Your task to perform on an android device: Open eBay Image 0: 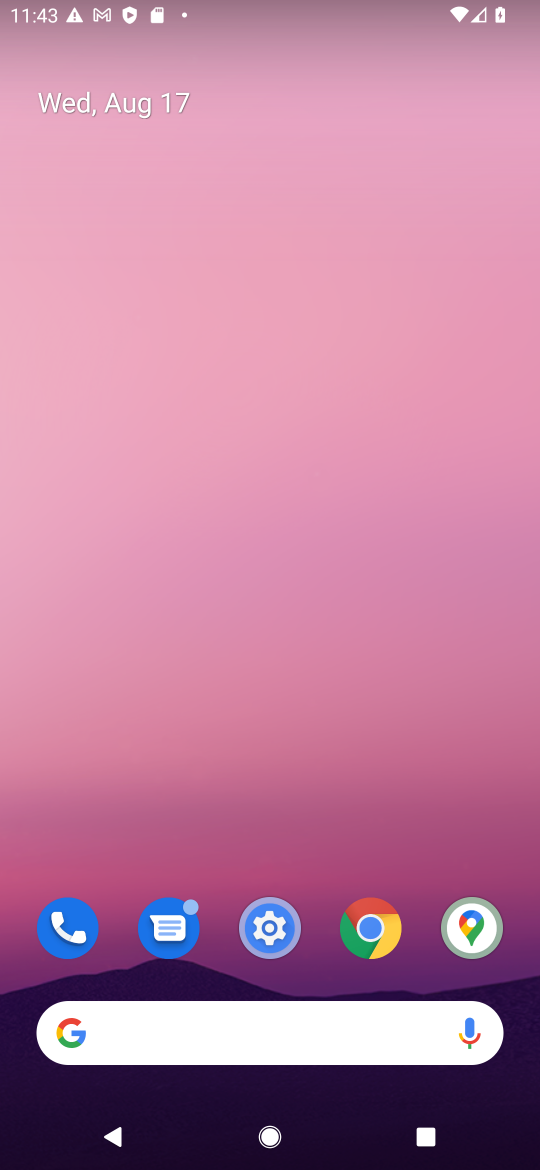
Step 0: click (356, 929)
Your task to perform on an android device: Open eBay Image 1: 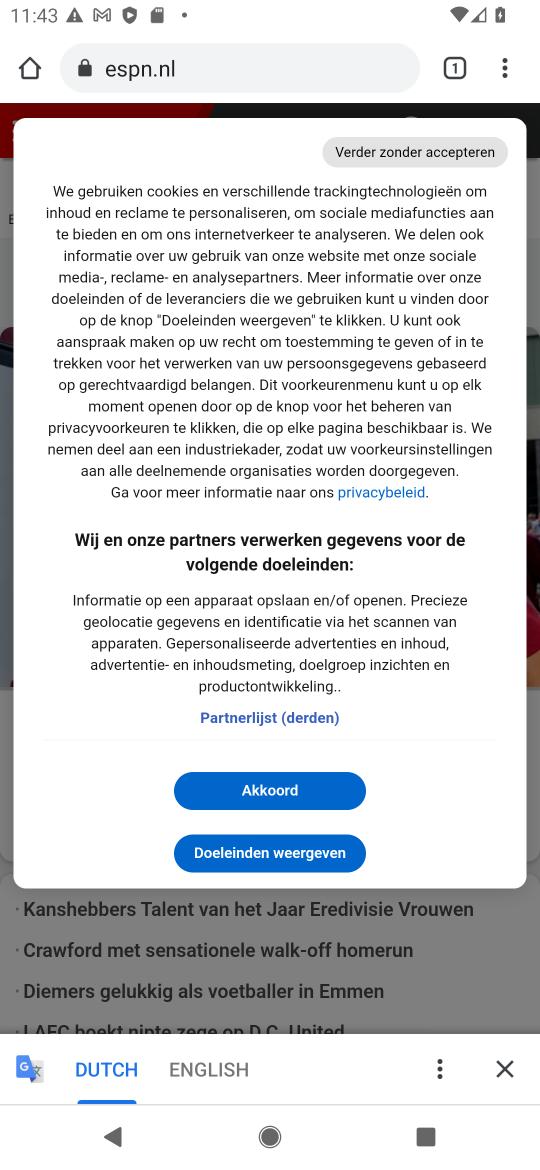
Step 1: click (452, 76)
Your task to perform on an android device: Open eBay Image 2: 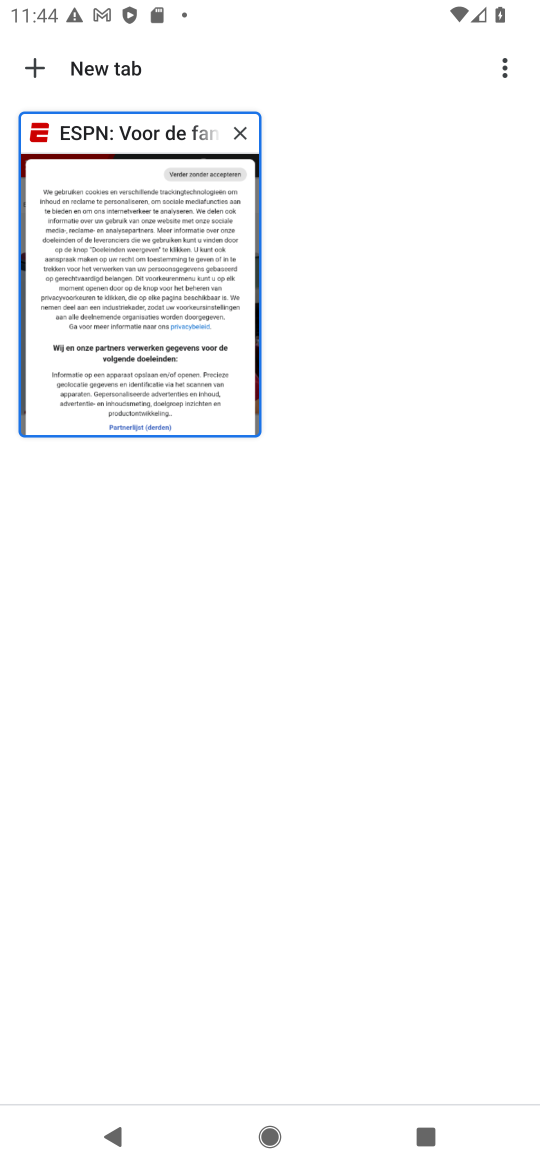
Step 2: click (38, 65)
Your task to perform on an android device: Open eBay Image 3: 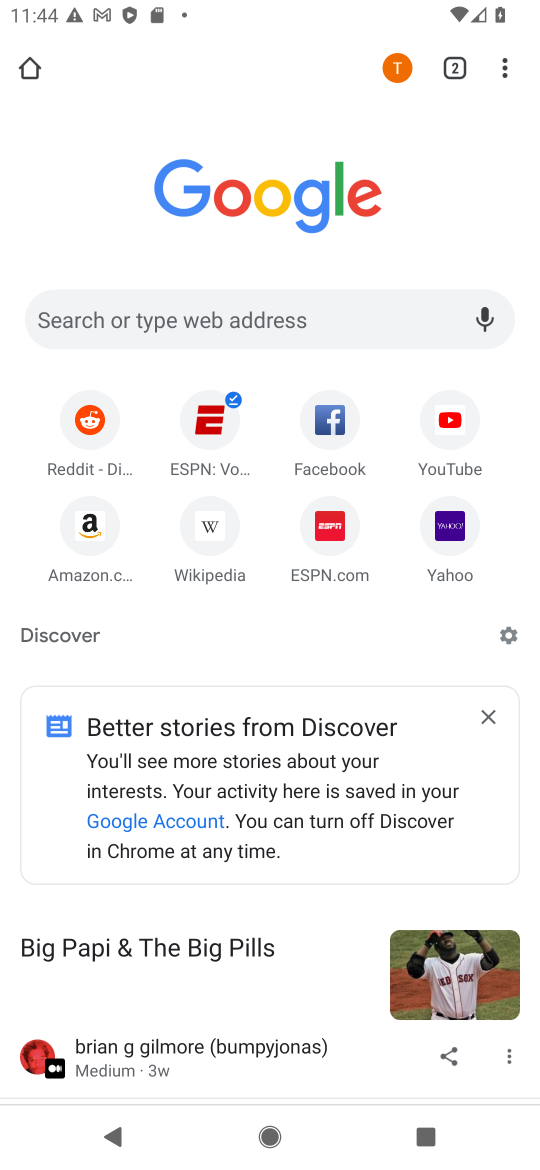
Step 3: click (236, 323)
Your task to perform on an android device: Open eBay Image 4: 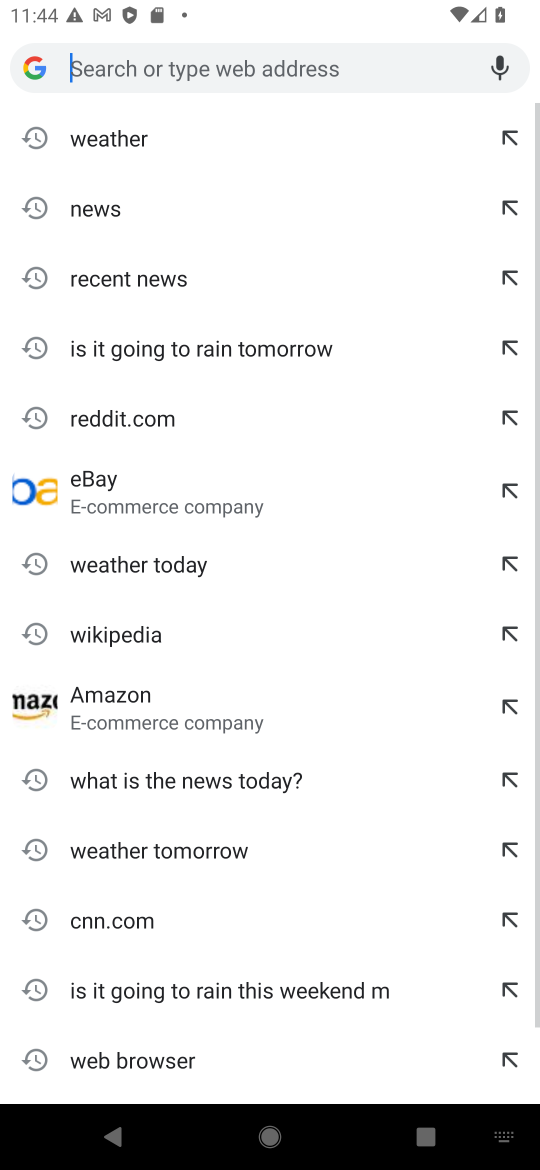
Step 4: type "eBay"
Your task to perform on an android device: Open eBay Image 5: 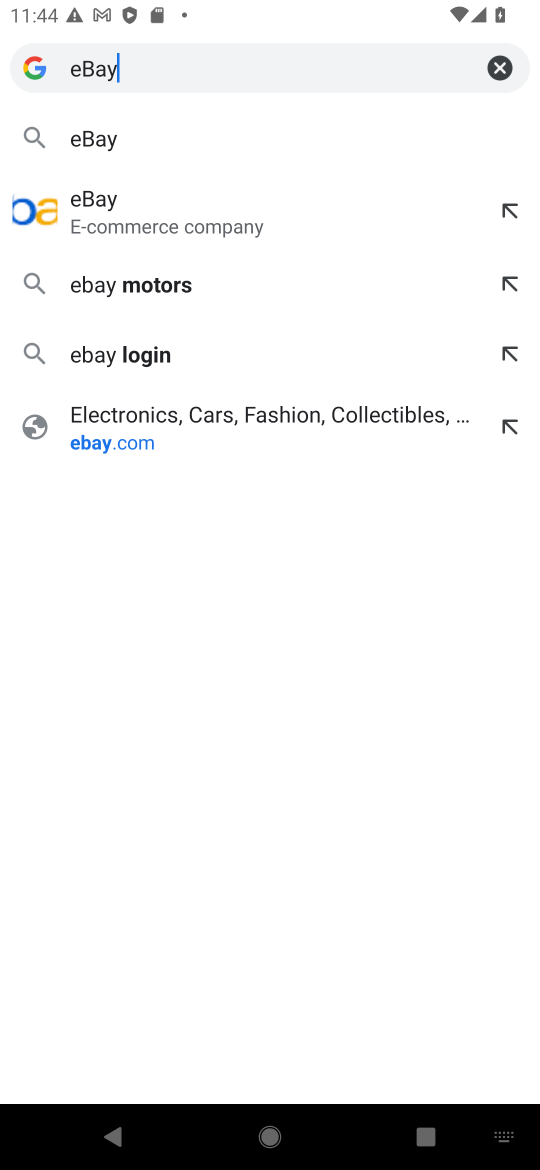
Step 5: click (138, 128)
Your task to perform on an android device: Open eBay Image 6: 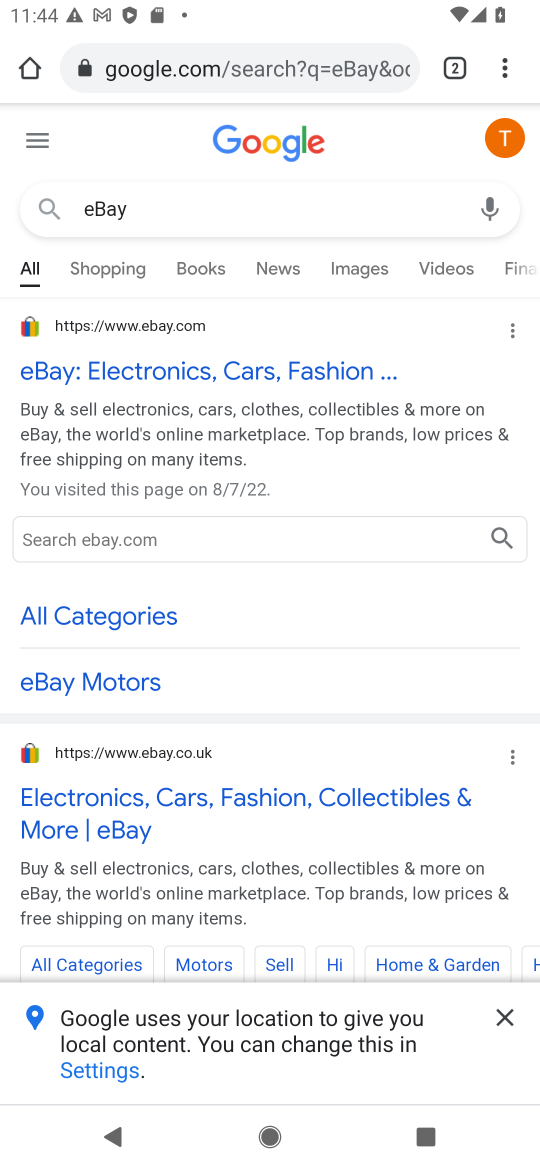
Step 6: click (172, 361)
Your task to perform on an android device: Open eBay Image 7: 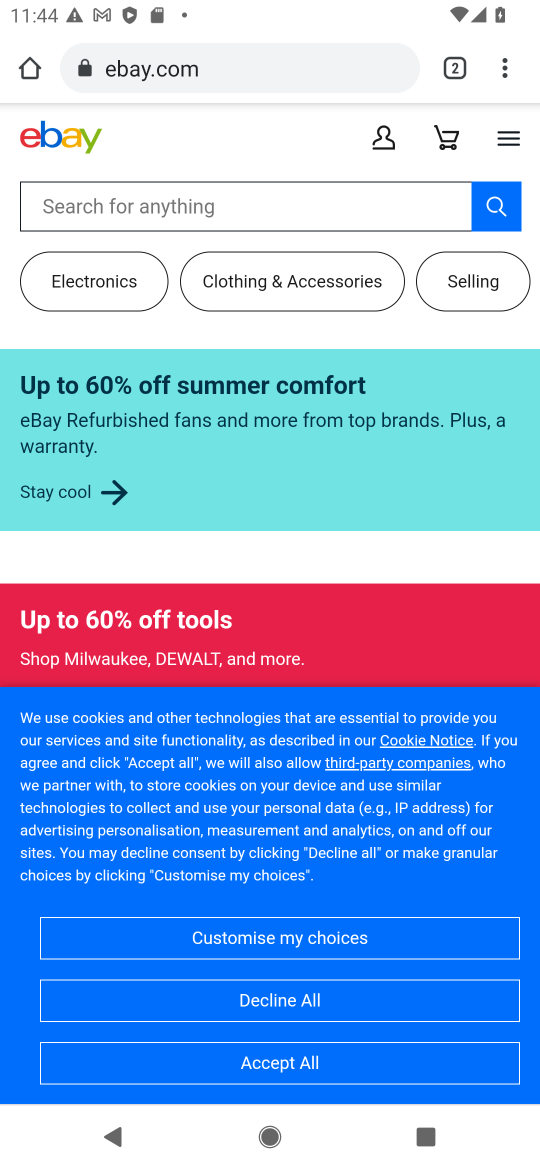
Step 7: task complete